Your task to perform on an android device: change the clock display to analog Image 0: 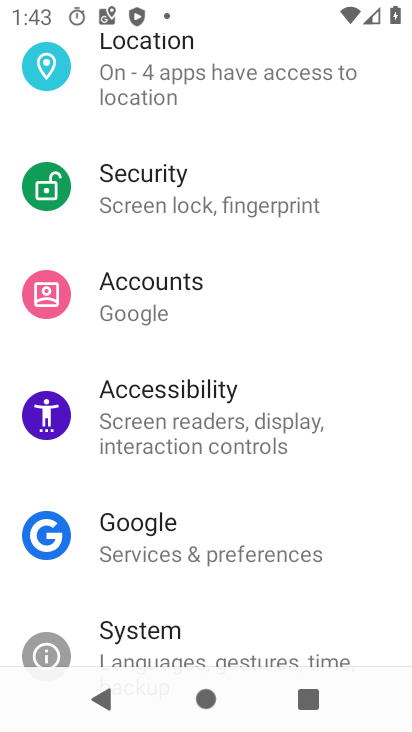
Step 0: press home button
Your task to perform on an android device: change the clock display to analog Image 1: 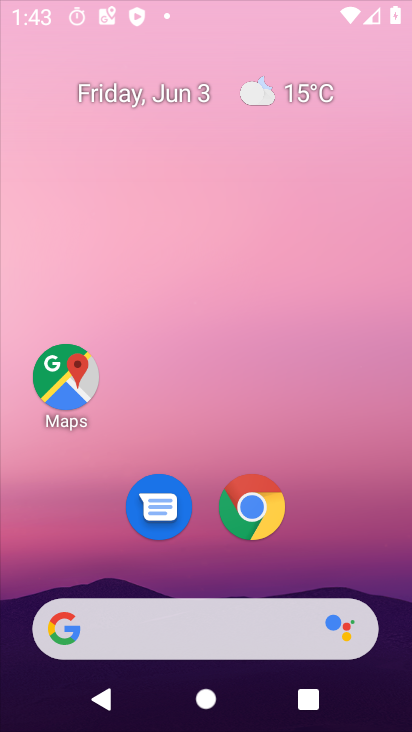
Step 1: drag from (379, 646) to (329, 36)
Your task to perform on an android device: change the clock display to analog Image 2: 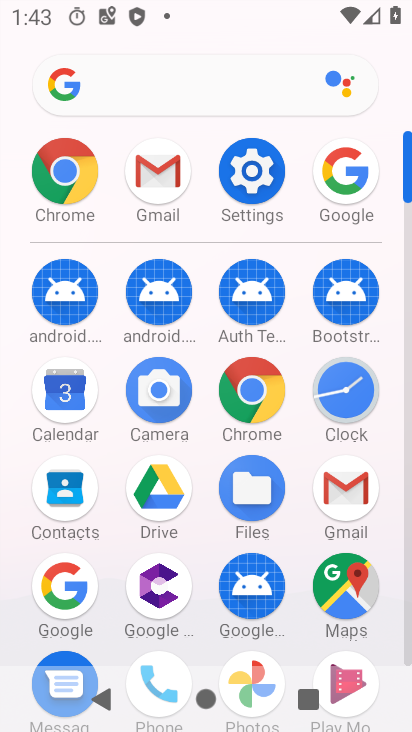
Step 2: click (352, 390)
Your task to perform on an android device: change the clock display to analog Image 3: 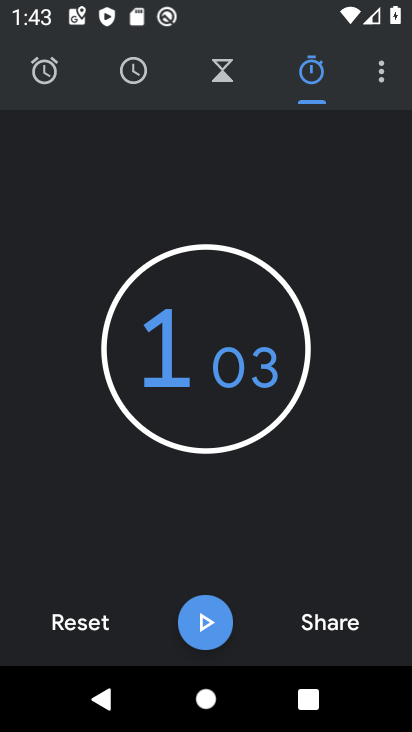
Step 3: click (381, 60)
Your task to perform on an android device: change the clock display to analog Image 4: 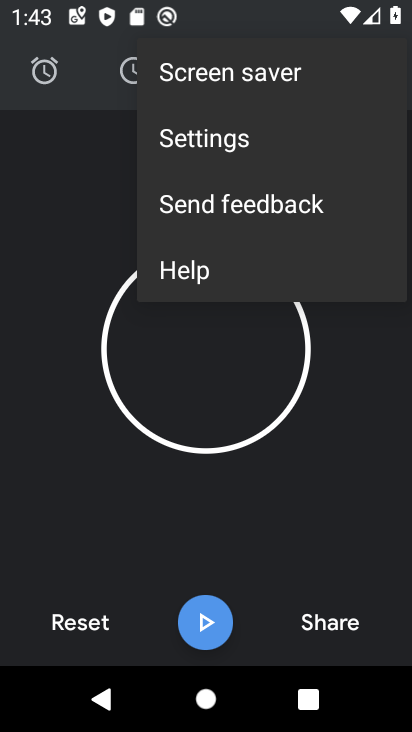
Step 4: click (235, 140)
Your task to perform on an android device: change the clock display to analog Image 5: 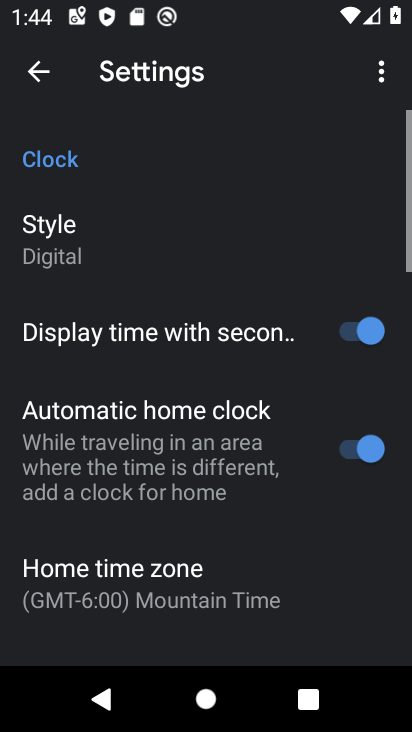
Step 5: click (81, 248)
Your task to perform on an android device: change the clock display to analog Image 6: 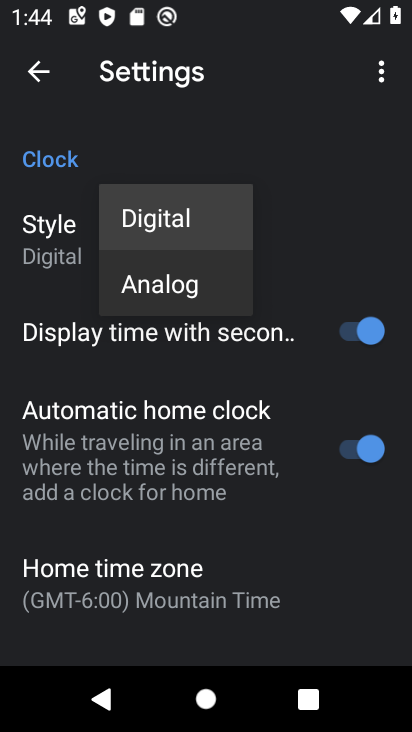
Step 6: click (178, 288)
Your task to perform on an android device: change the clock display to analog Image 7: 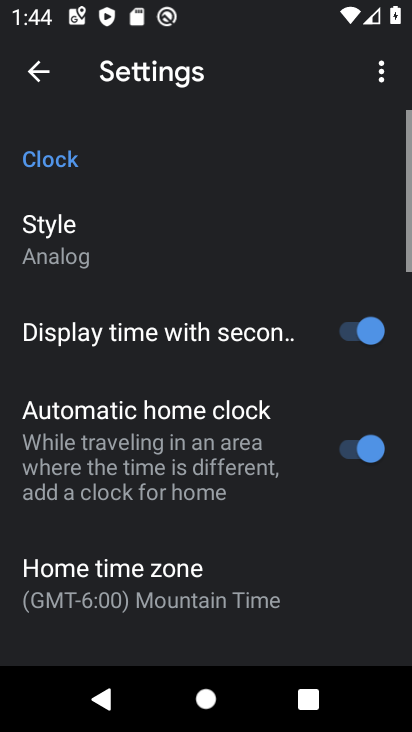
Step 7: task complete